Your task to perform on an android device: open the mobile data screen to see how much data has been used Image 0: 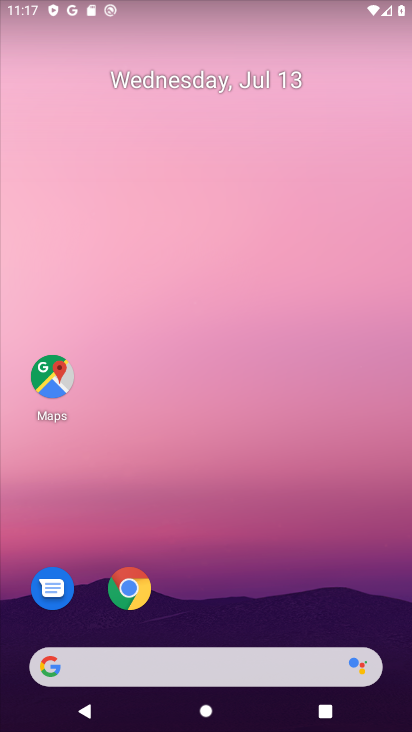
Step 0: drag from (214, 615) to (212, 145)
Your task to perform on an android device: open the mobile data screen to see how much data has been used Image 1: 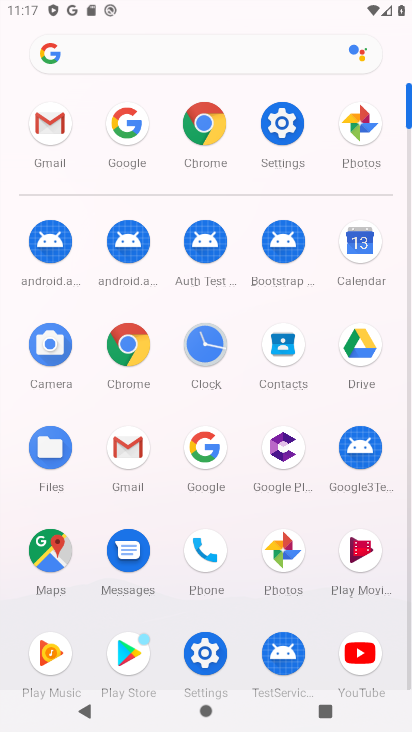
Step 1: click (280, 122)
Your task to perform on an android device: open the mobile data screen to see how much data has been used Image 2: 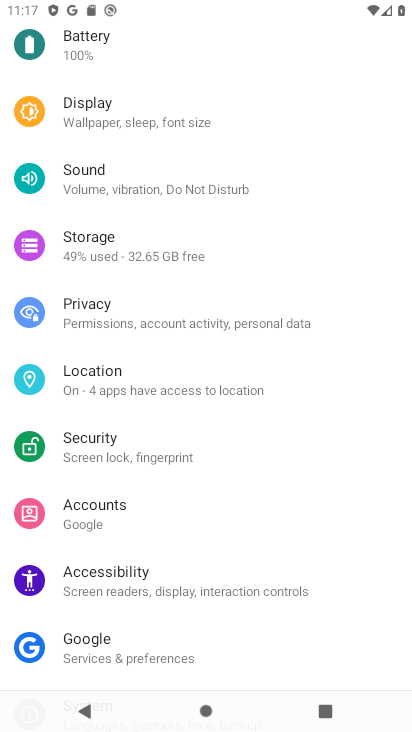
Step 2: drag from (191, 126) to (224, 683)
Your task to perform on an android device: open the mobile data screen to see how much data has been used Image 3: 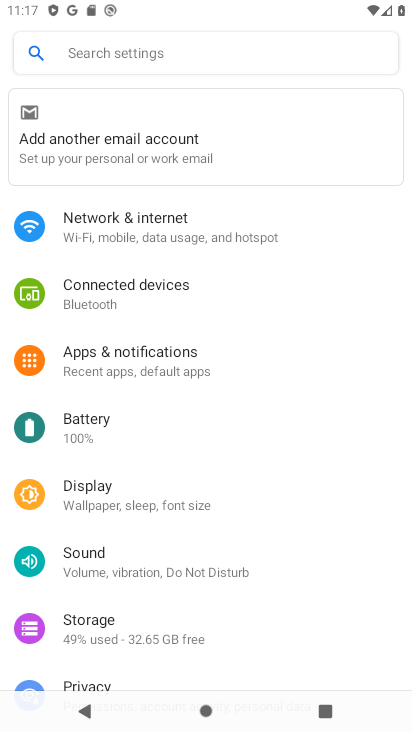
Step 3: click (145, 225)
Your task to perform on an android device: open the mobile data screen to see how much data has been used Image 4: 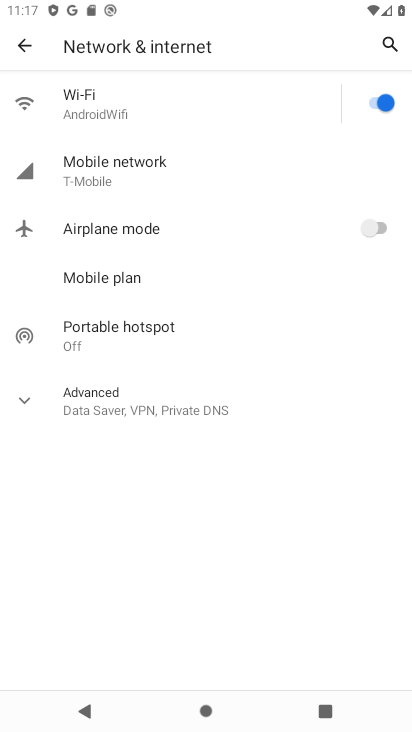
Step 4: click (97, 182)
Your task to perform on an android device: open the mobile data screen to see how much data has been used Image 5: 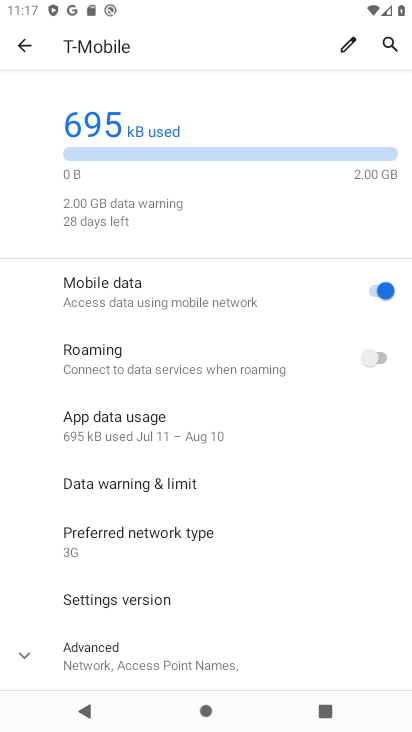
Step 5: task complete